Your task to perform on an android device: What's the weather going to be this weekend? Image 0: 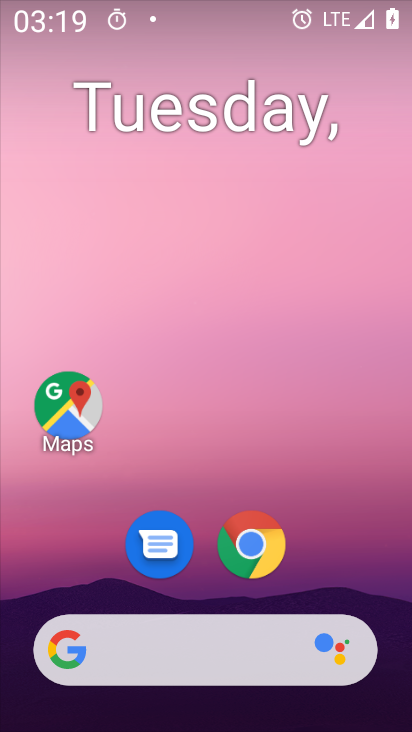
Step 0: drag from (326, 449) to (238, 29)
Your task to perform on an android device: What's the weather going to be this weekend? Image 1: 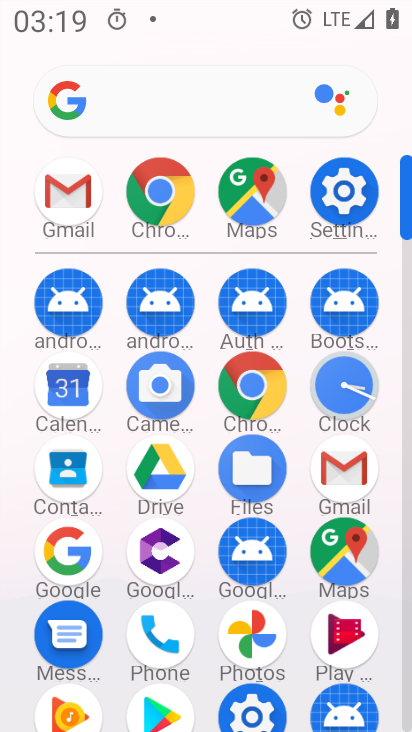
Step 1: drag from (12, 619) to (3, 235)
Your task to perform on an android device: What's the weather going to be this weekend? Image 2: 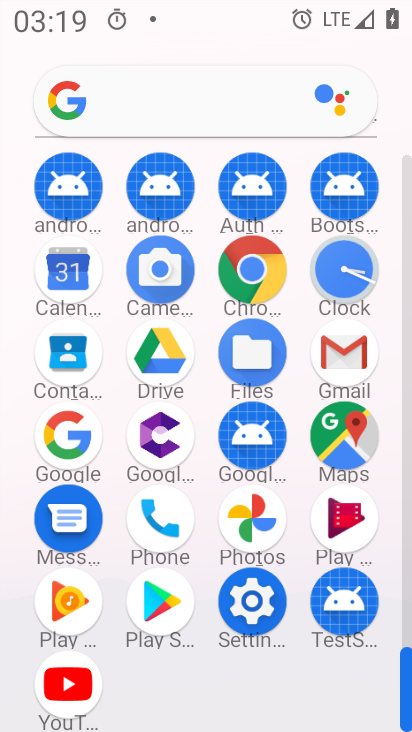
Step 2: click (256, 263)
Your task to perform on an android device: What's the weather going to be this weekend? Image 3: 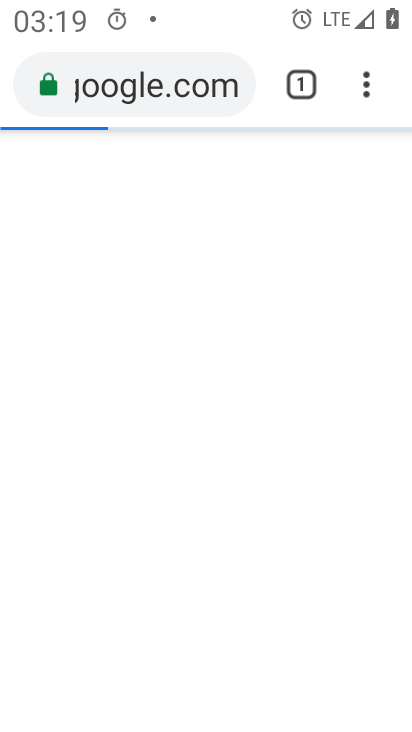
Step 3: click (191, 82)
Your task to perform on an android device: What's the weather going to be this weekend? Image 4: 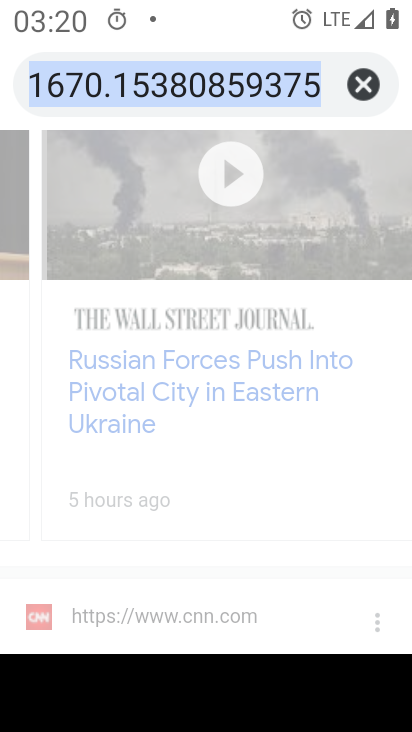
Step 4: click (359, 80)
Your task to perform on an android device: What's the weather going to be this weekend? Image 5: 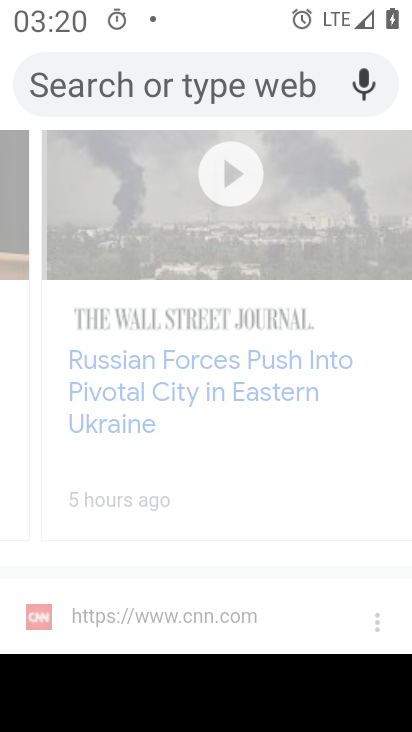
Step 5: type "What's the weather going to be this weekend?"
Your task to perform on an android device: What's the weather going to be this weekend? Image 6: 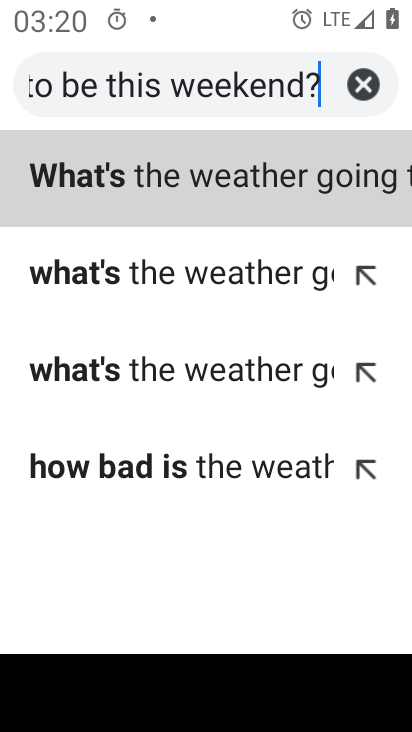
Step 6: click (224, 180)
Your task to perform on an android device: What's the weather going to be this weekend? Image 7: 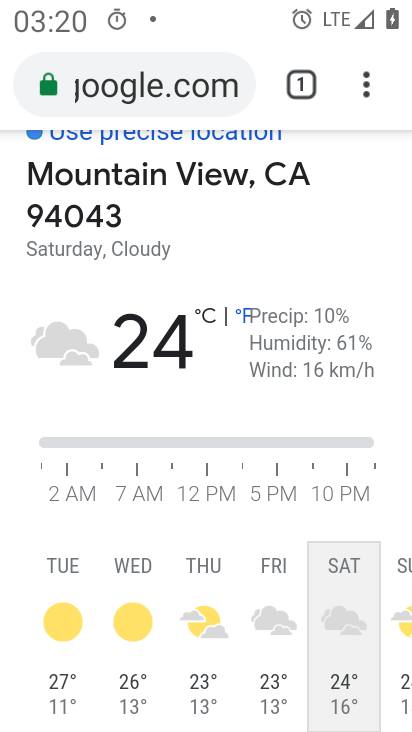
Step 7: task complete